Your task to perform on an android device: Open Google Chrome and open the bookmarks view Image 0: 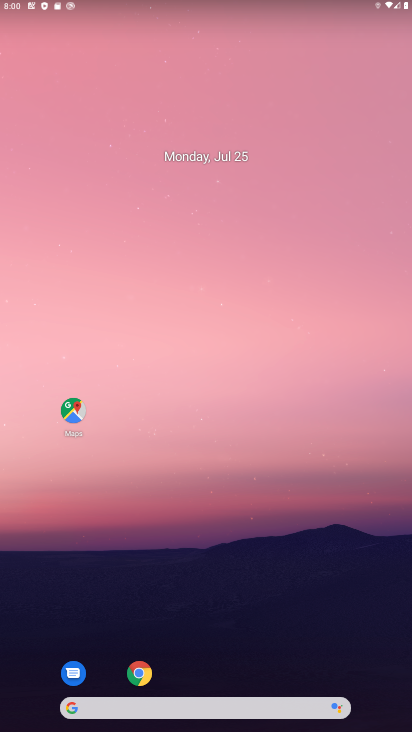
Step 0: drag from (235, 505) to (235, 141)
Your task to perform on an android device: Open Google Chrome and open the bookmarks view Image 1: 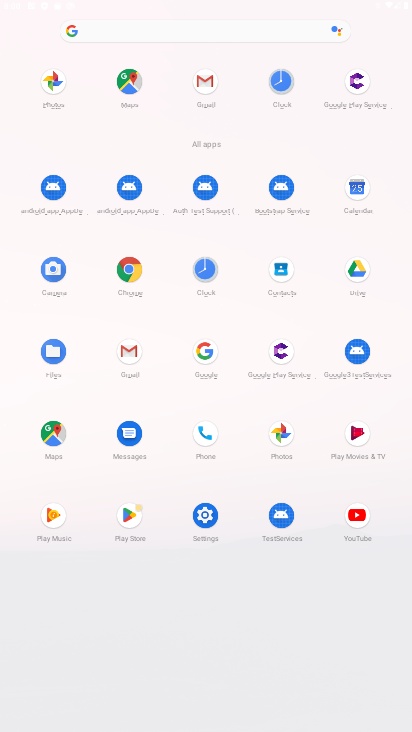
Step 1: drag from (252, 571) to (238, 2)
Your task to perform on an android device: Open Google Chrome and open the bookmarks view Image 2: 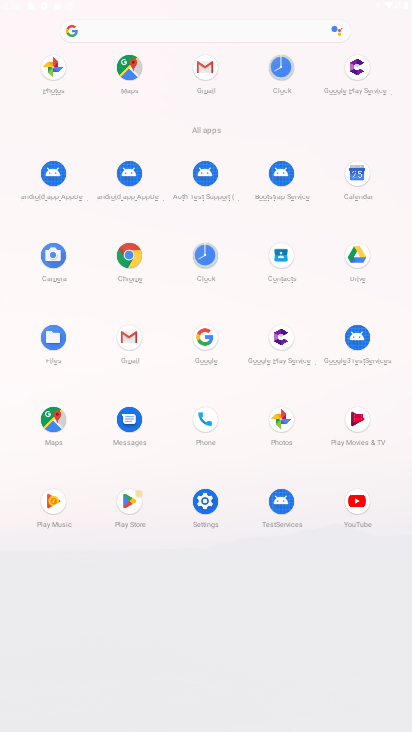
Step 2: drag from (207, 341) to (207, 276)
Your task to perform on an android device: Open Google Chrome and open the bookmarks view Image 3: 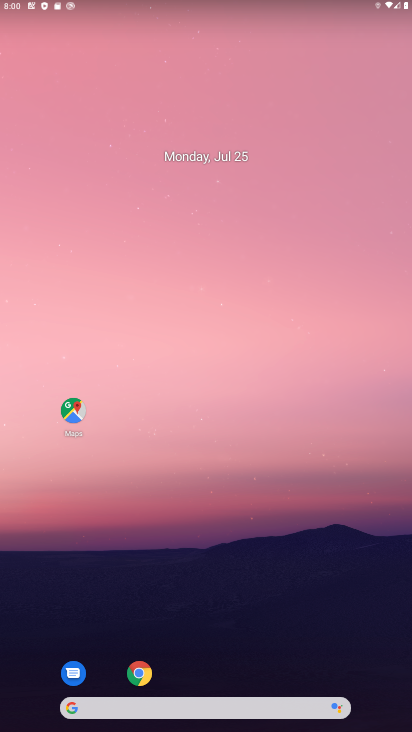
Step 3: drag from (176, 673) to (168, 212)
Your task to perform on an android device: Open Google Chrome and open the bookmarks view Image 4: 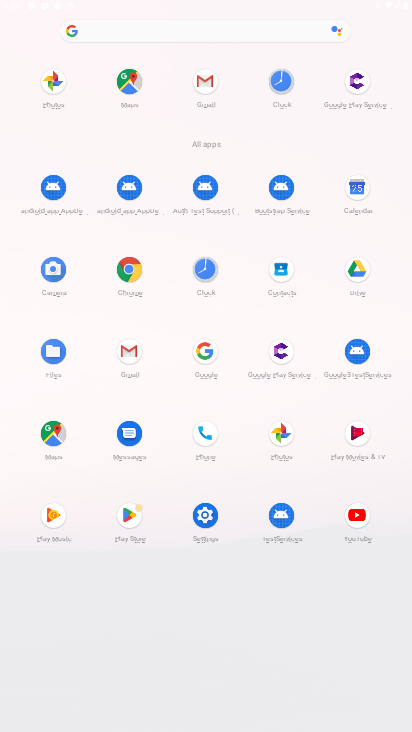
Step 4: click (291, 15)
Your task to perform on an android device: Open Google Chrome and open the bookmarks view Image 5: 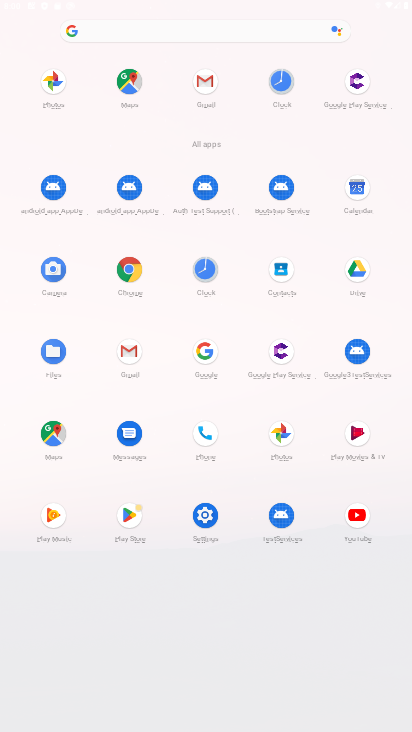
Step 5: click (127, 269)
Your task to perform on an android device: Open Google Chrome and open the bookmarks view Image 6: 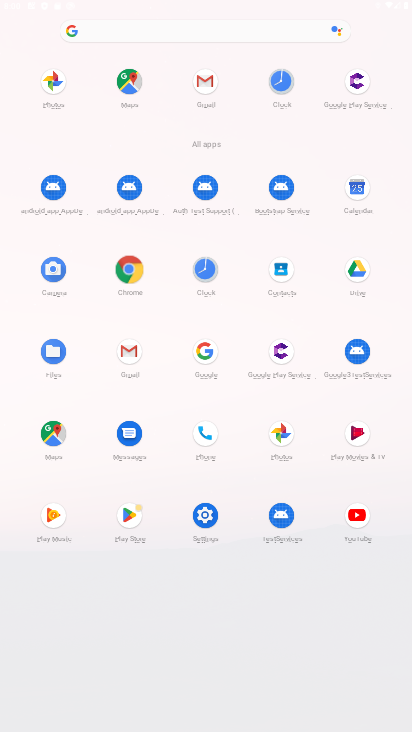
Step 6: click (127, 269)
Your task to perform on an android device: Open Google Chrome and open the bookmarks view Image 7: 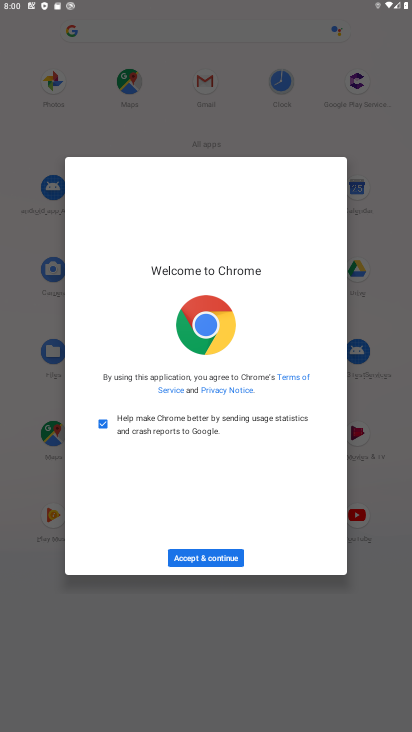
Step 7: click (203, 552)
Your task to perform on an android device: Open Google Chrome and open the bookmarks view Image 8: 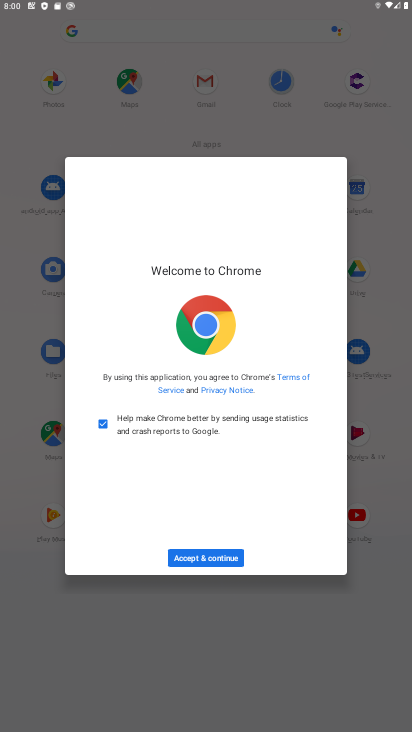
Step 8: click (205, 555)
Your task to perform on an android device: Open Google Chrome and open the bookmarks view Image 9: 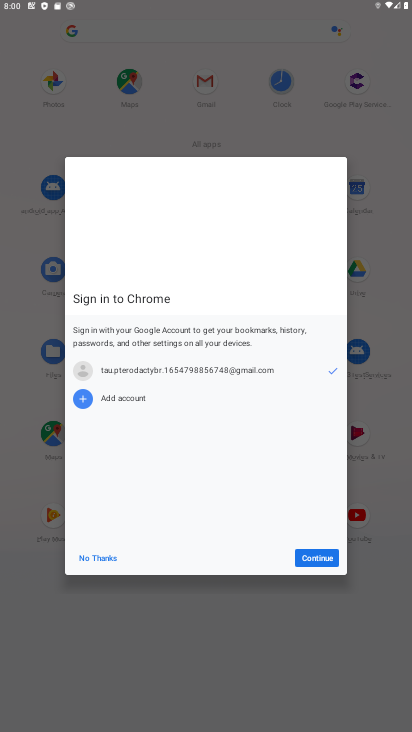
Step 9: click (111, 551)
Your task to perform on an android device: Open Google Chrome and open the bookmarks view Image 10: 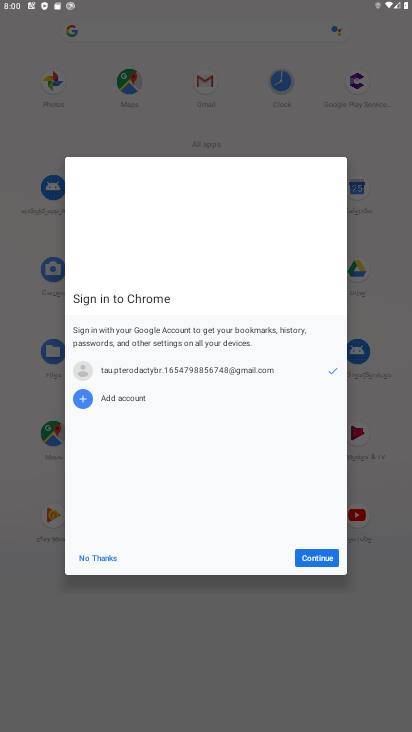
Step 10: click (108, 544)
Your task to perform on an android device: Open Google Chrome and open the bookmarks view Image 11: 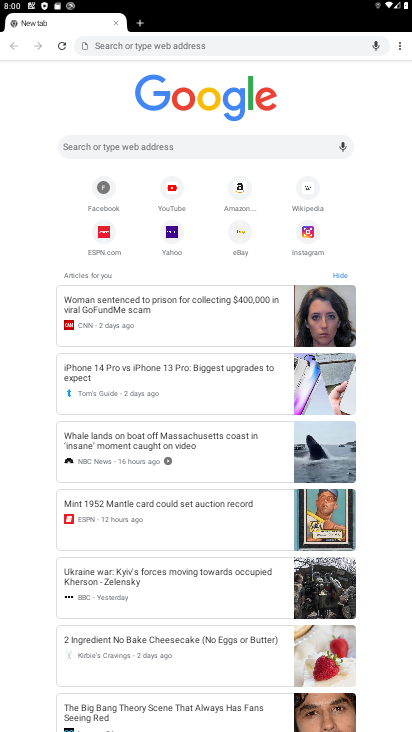
Step 11: click (403, 50)
Your task to perform on an android device: Open Google Chrome and open the bookmarks view Image 12: 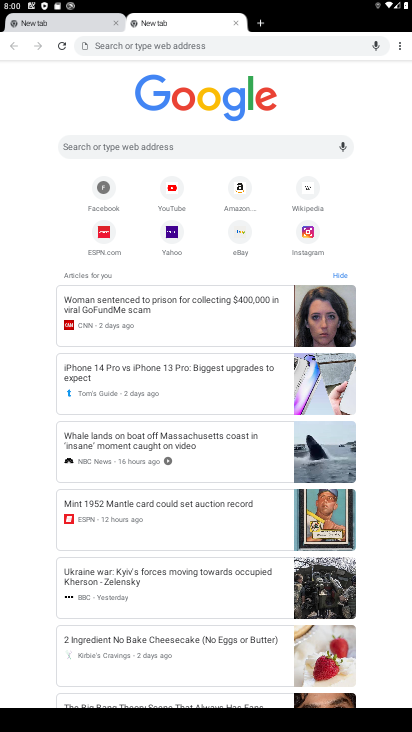
Step 12: click (399, 44)
Your task to perform on an android device: Open Google Chrome and open the bookmarks view Image 13: 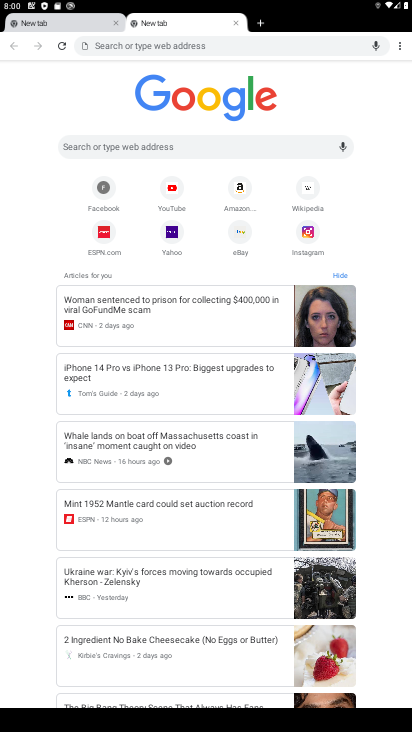
Step 13: click (399, 44)
Your task to perform on an android device: Open Google Chrome and open the bookmarks view Image 14: 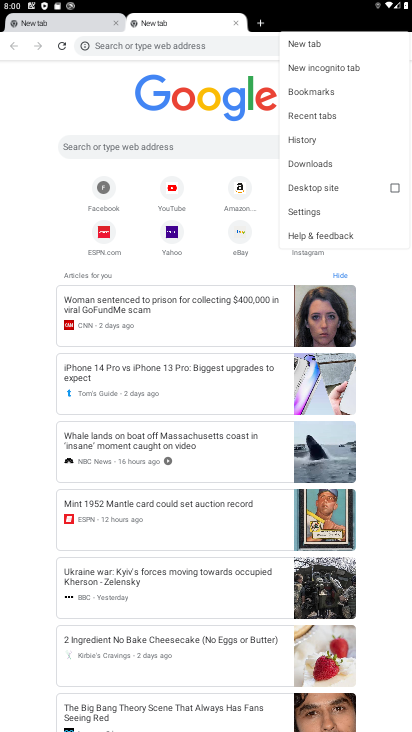
Step 14: click (315, 97)
Your task to perform on an android device: Open Google Chrome and open the bookmarks view Image 15: 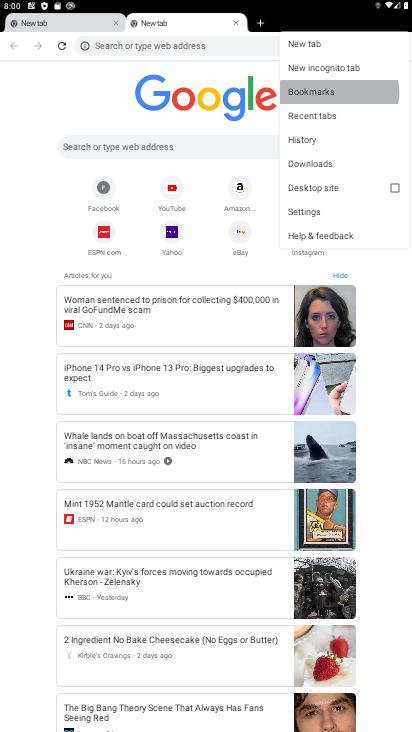
Step 15: click (315, 97)
Your task to perform on an android device: Open Google Chrome and open the bookmarks view Image 16: 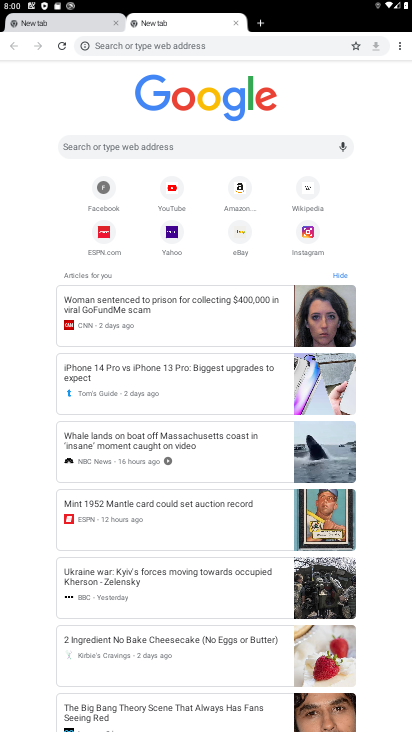
Step 16: click (314, 96)
Your task to perform on an android device: Open Google Chrome and open the bookmarks view Image 17: 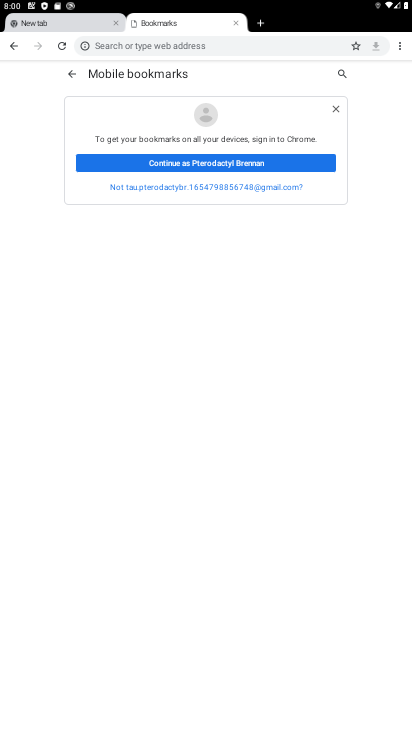
Step 17: click (336, 107)
Your task to perform on an android device: Open Google Chrome and open the bookmarks view Image 18: 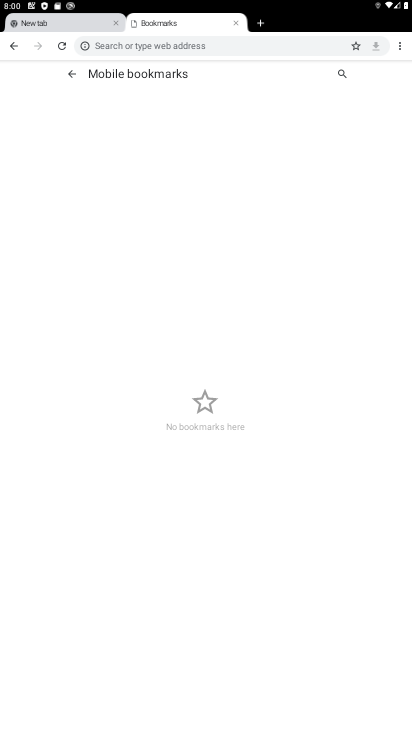
Step 18: task complete